Your task to perform on an android device: What's the news this week? Image 0: 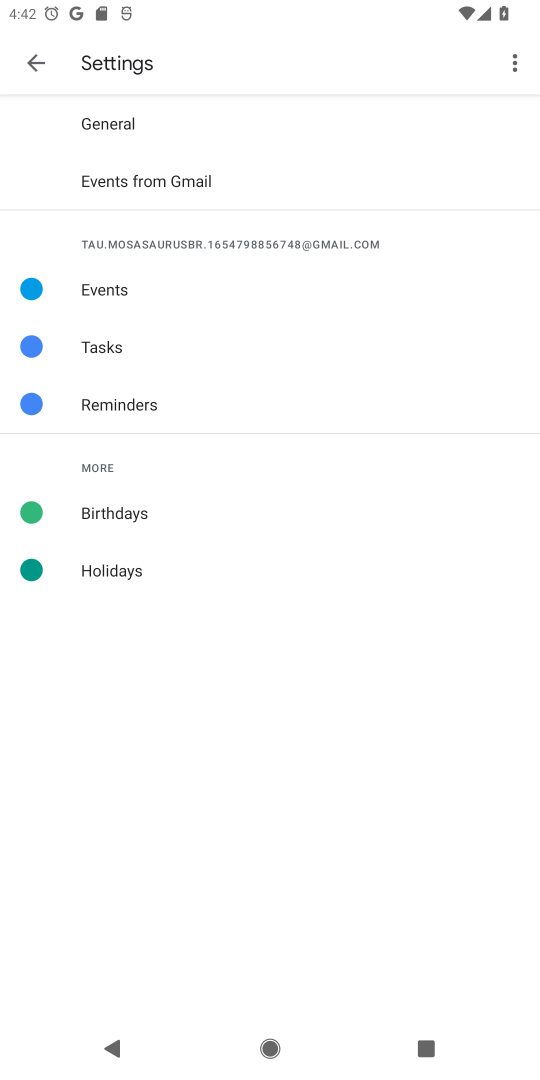
Step 0: press home button
Your task to perform on an android device: What's the news this week? Image 1: 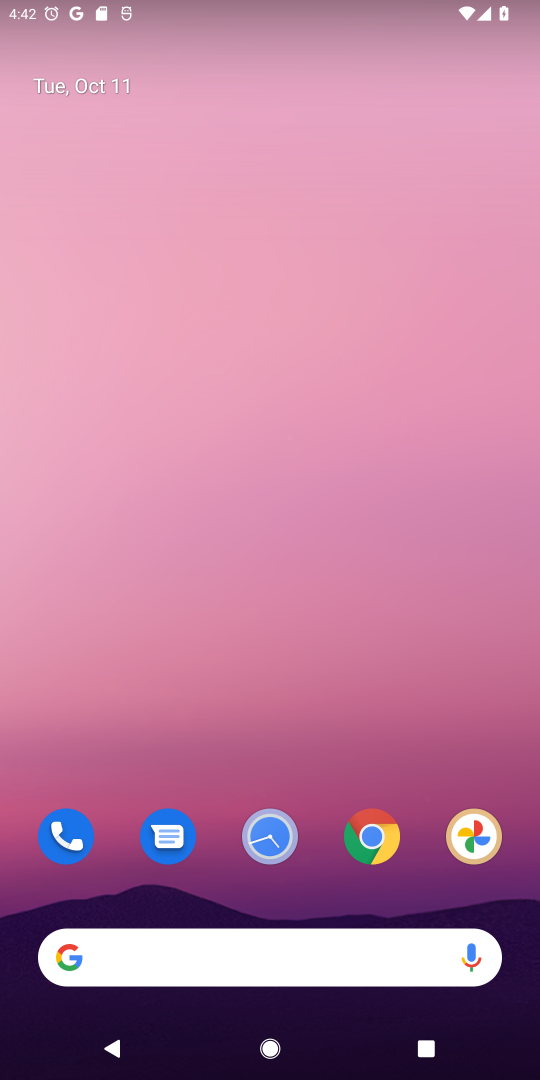
Step 1: click (275, 957)
Your task to perform on an android device: What's the news this week? Image 2: 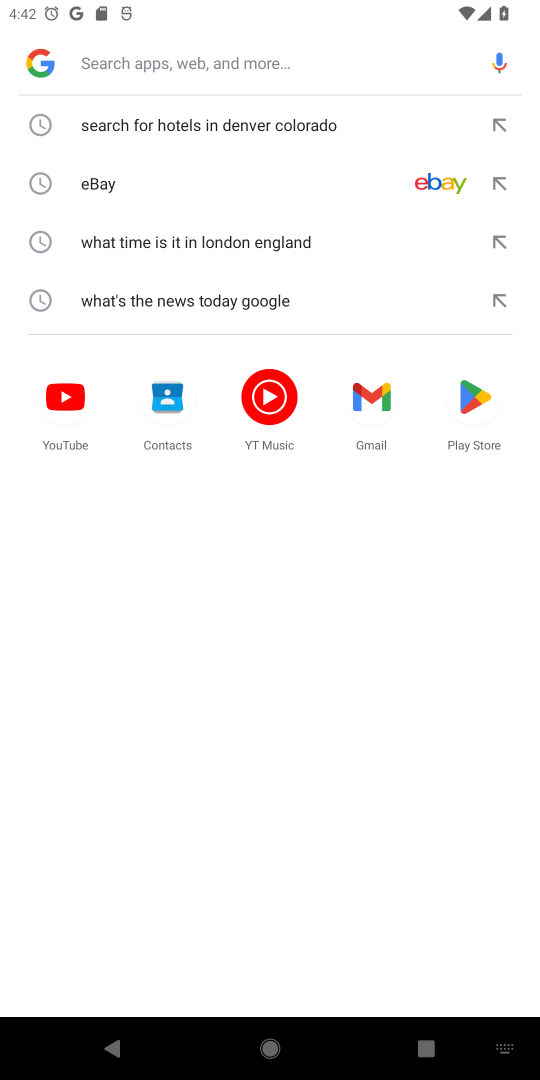
Step 2: type "What's the news this week?"
Your task to perform on an android device: What's the news this week? Image 3: 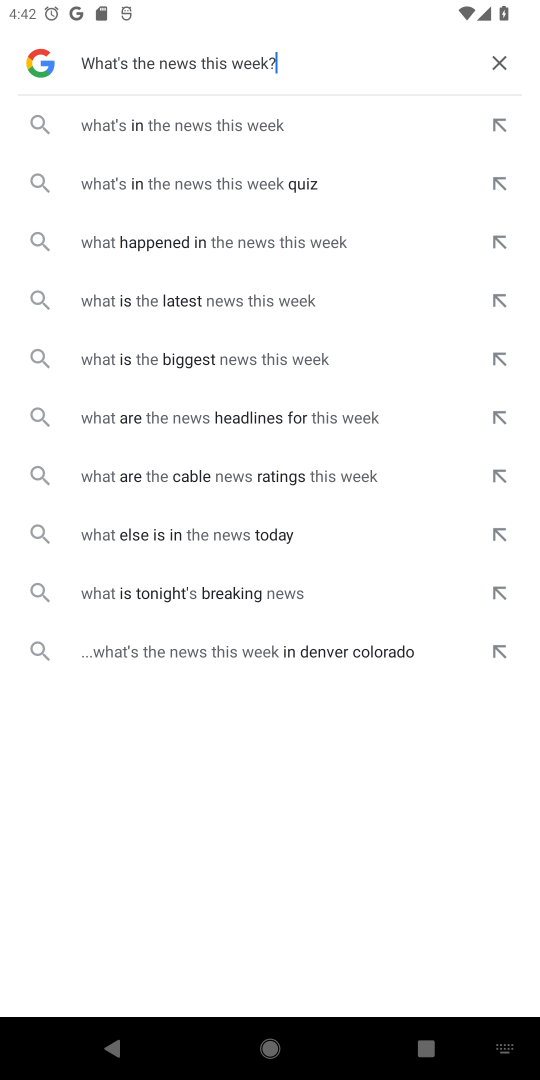
Step 3: click (261, 112)
Your task to perform on an android device: What's the news this week? Image 4: 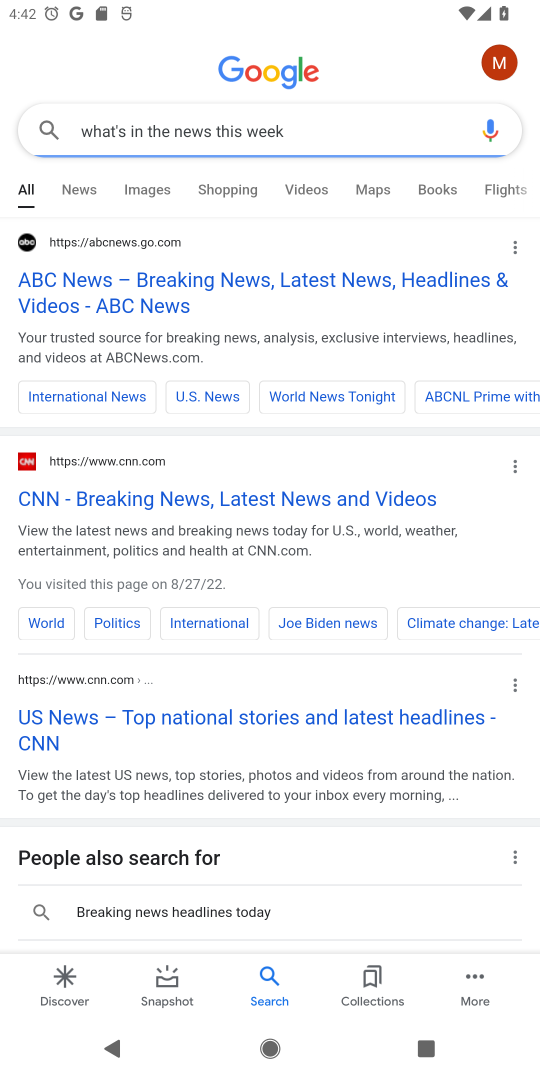
Step 4: task complete